Your task to perform on an android device: Go to Amazon Image 0: 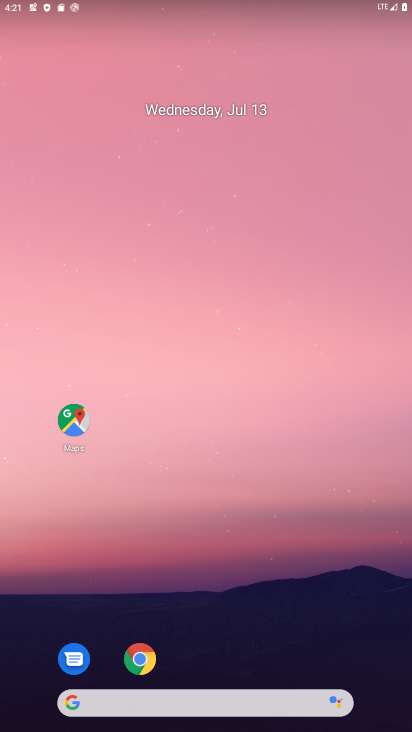
Step 0: click (142, 664)
Your task to perform on an android device: Go to Amazon Image 1: 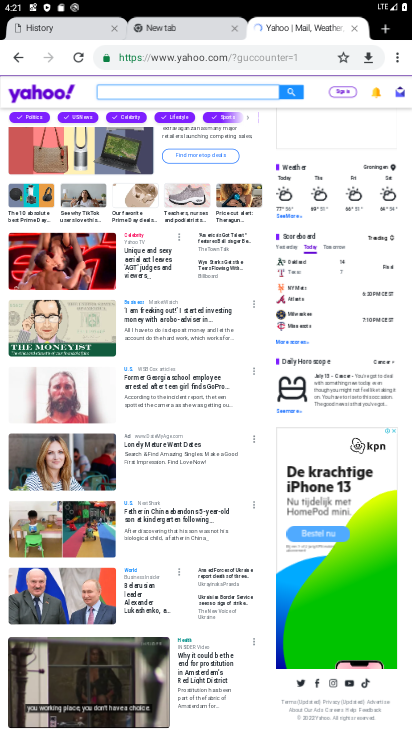
Step 1: click (381, 26)
Your task to perform on an android device: Go to Amazon Image 2: 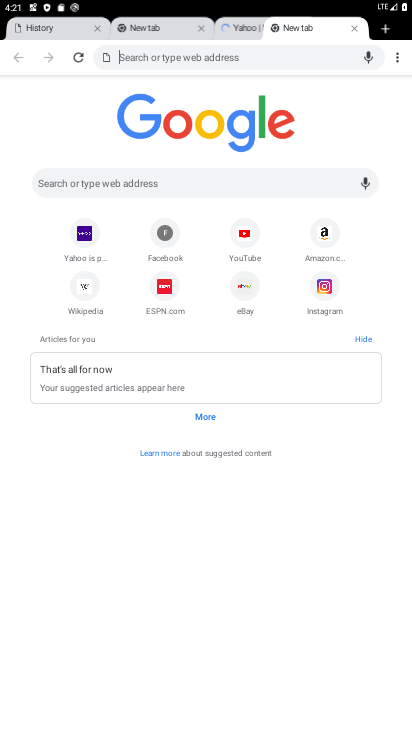
Step 2: click (330, 228)
Your task to perform on an android device: Go to Amazon Image 3: 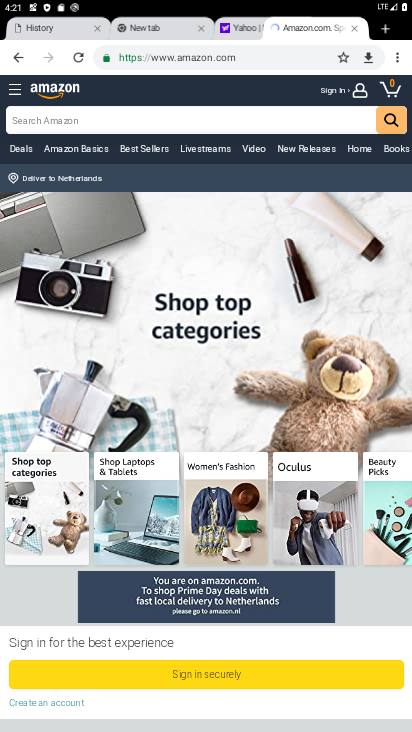
Step 3: task complete